Your task to perform on an android device: Open Youtube and go to the subscriptions tab Image 0: 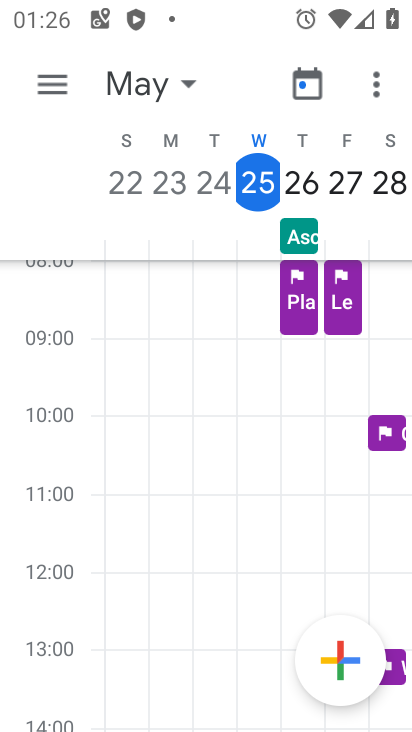
Step 0: press home button
Your task to perform on an android device: Open Youtube and go to the subscriptions tab Image 1: 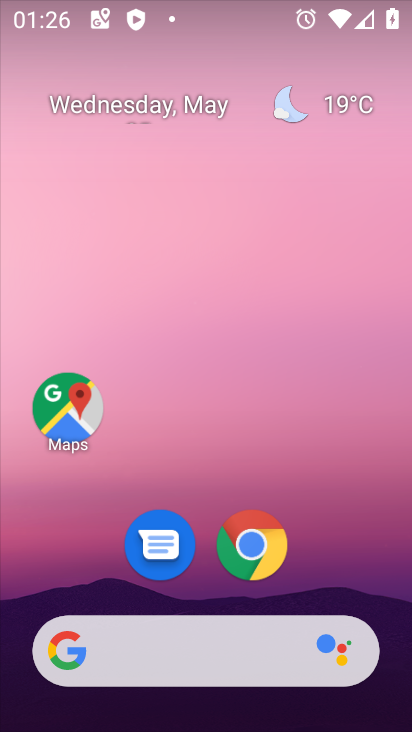
Step 1: drag from (349, 591) to (317, 43)
Your task to perform on an android device: Open Youtube and go to the subscriptions tab Image 2: 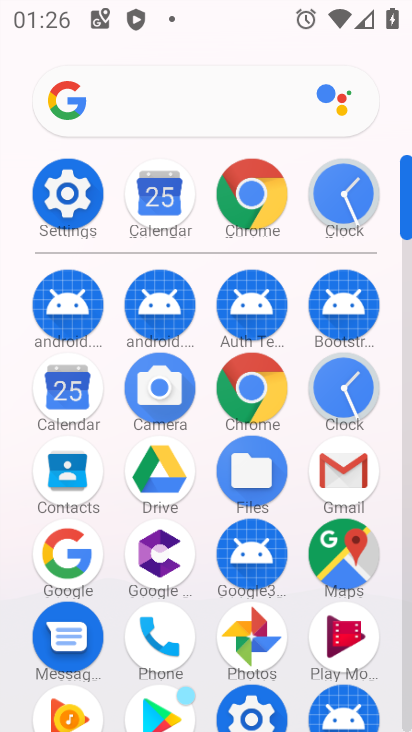
Step 2: drag from (304, 579) to (304, 7)
Your task to perform on an android device: Open Youtube and go to the subscriptions tab Image 3: 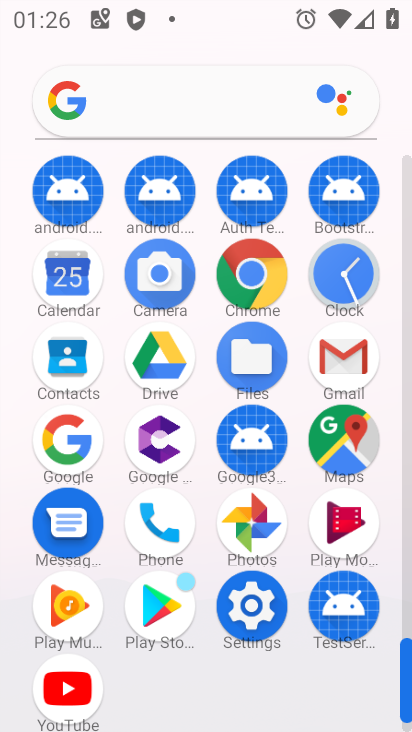
Step 3: click (65, 688)
Your task to perform on an android device: Open Youtube and go to the subscriptions tab Image 4: 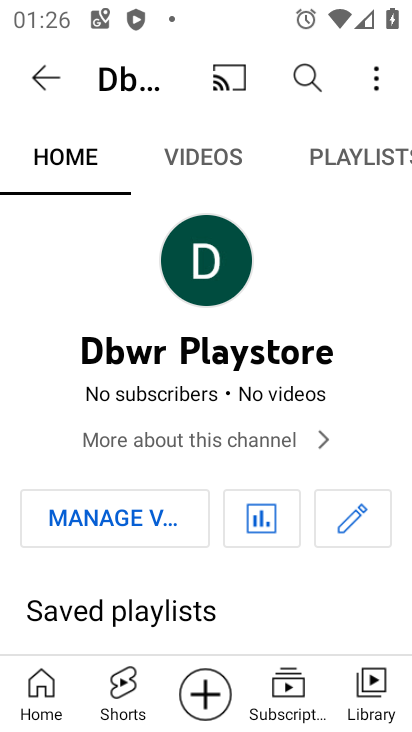
Step 4: click (290, 692)
Your task to perform on an android device: Open Youtube and go to the subscriptions tab Image 5: 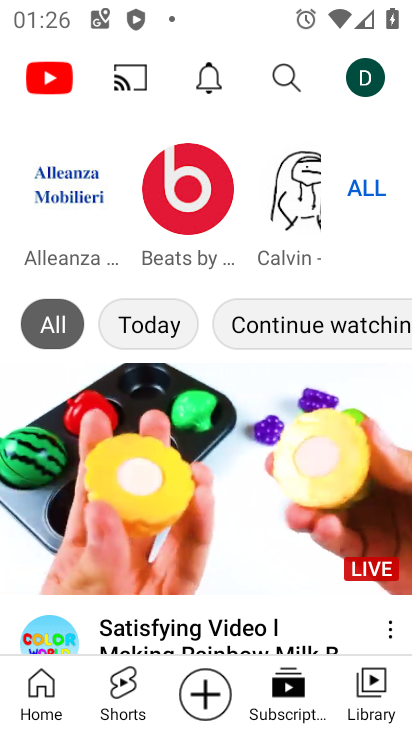
Step 5: task complete